Your task to perform on an android device: Search for flights from Sydney to Zurich Image 0: 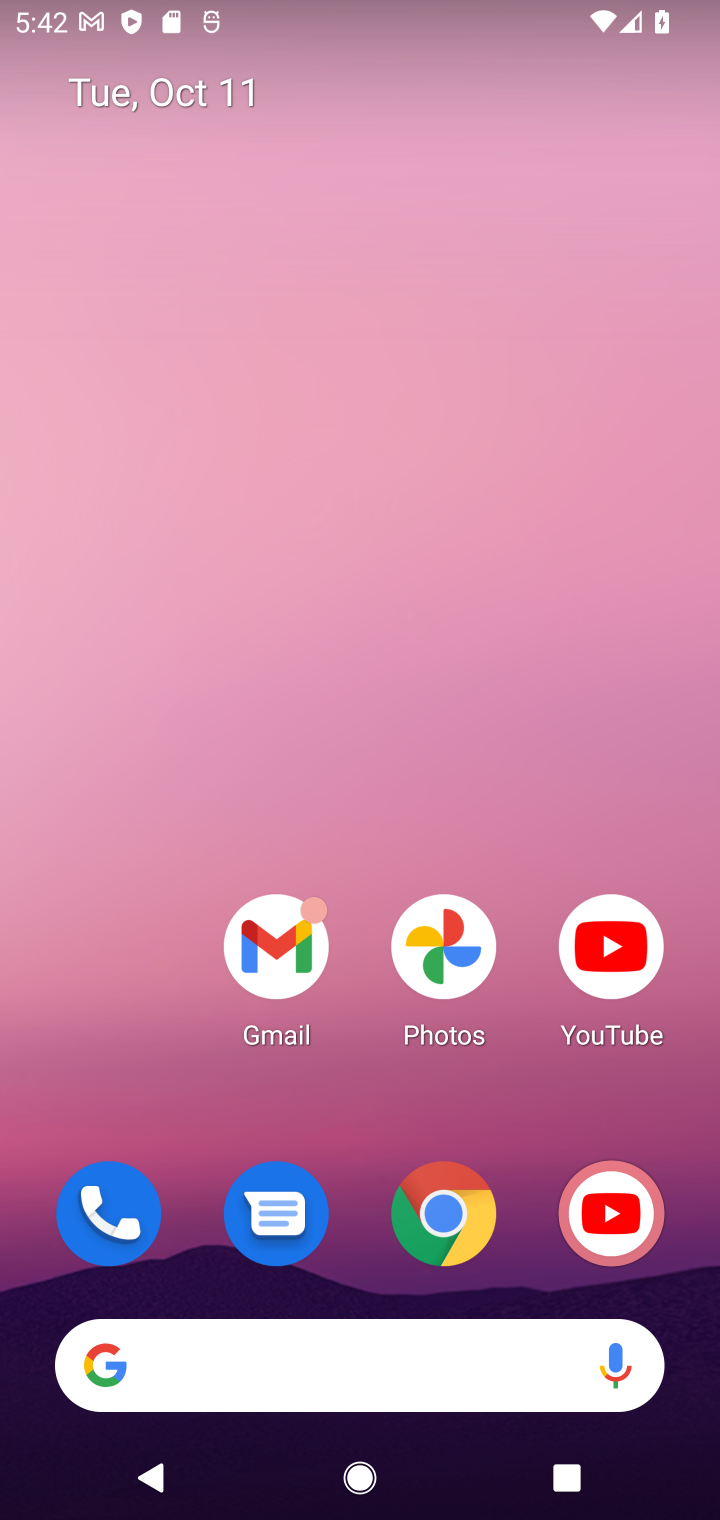
Step 0: drag from (440, 1072) to (548, 53)
Your task to perform on an android device: Search for flights from Sydney to Zurich Image 1: 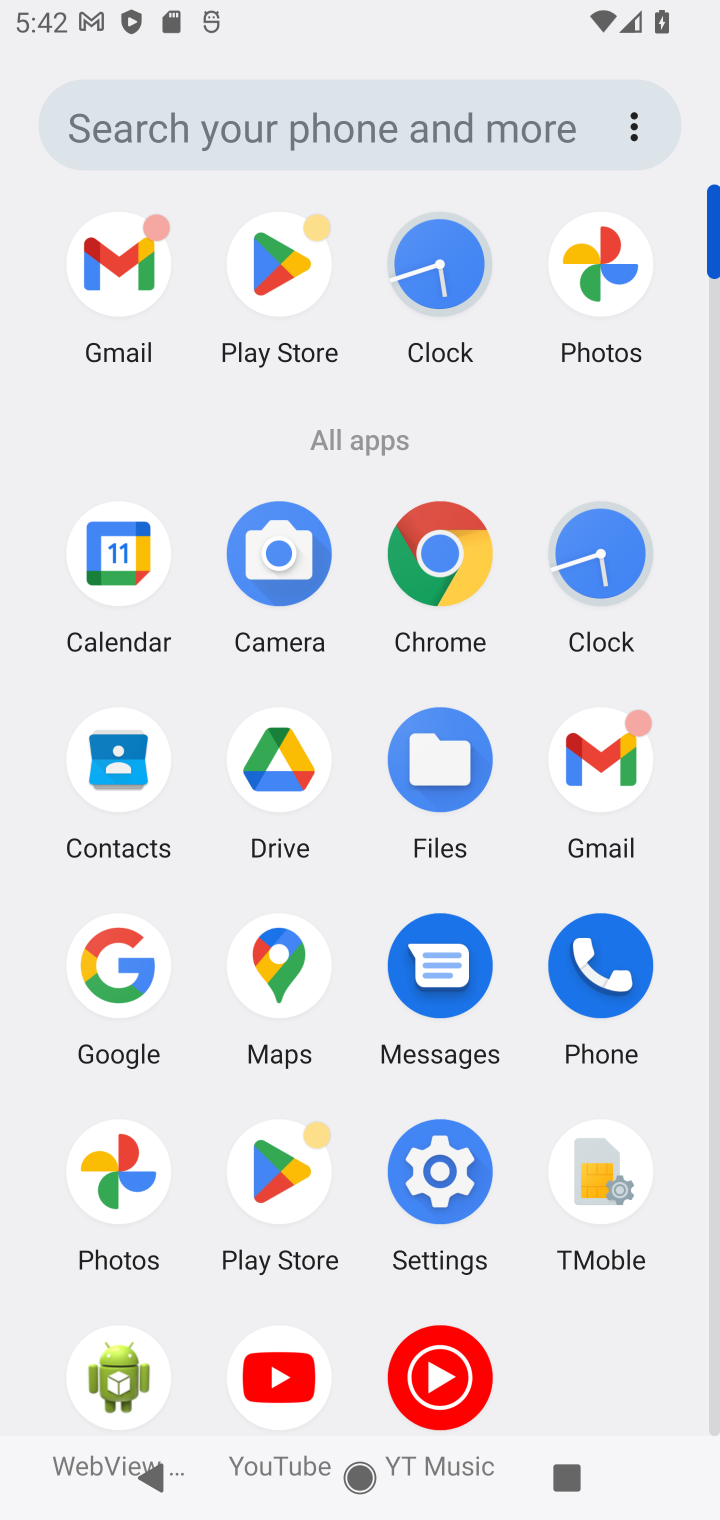
Step 1: click (457, 574)
Your task to perform on an android device: Search for flights from Sydney to Zurich Image 2: 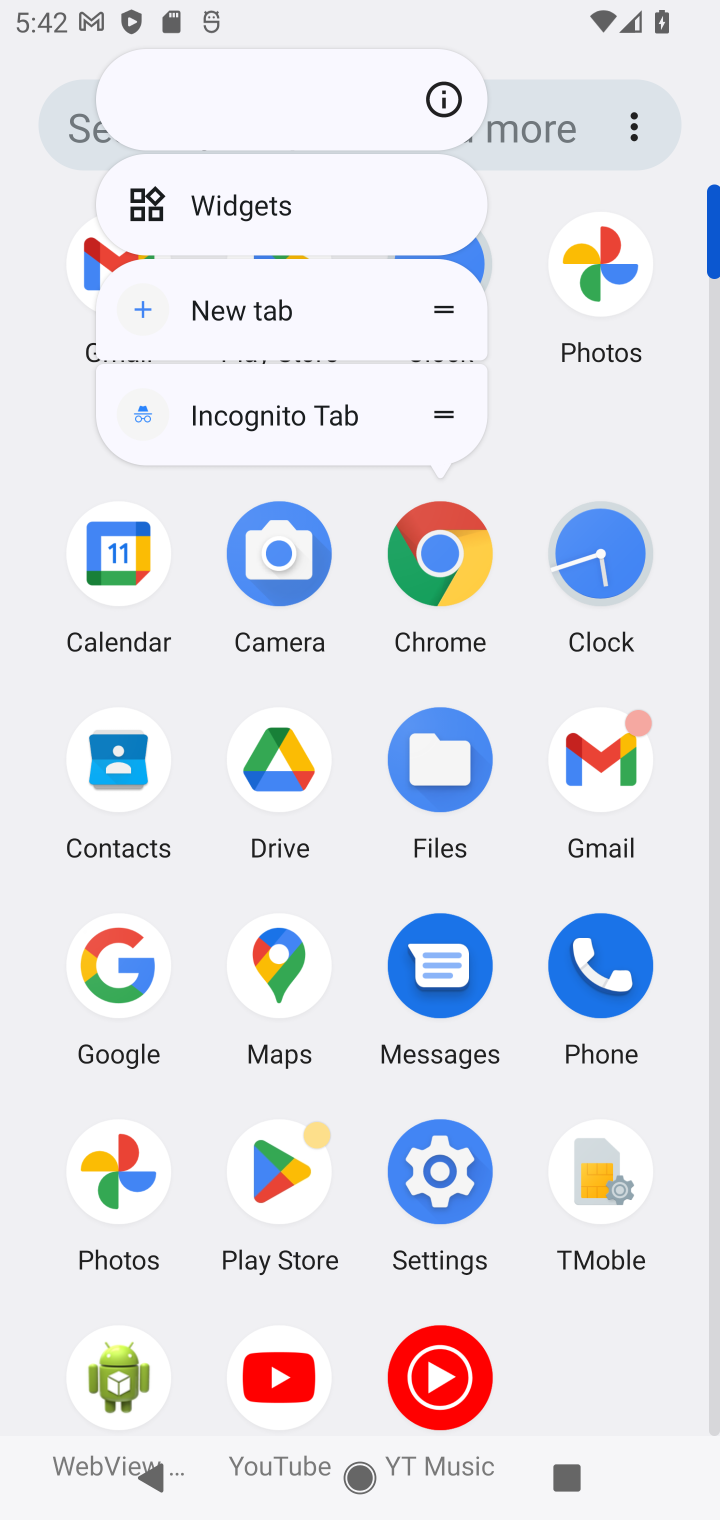
Step 2: click (442, 542)
Your task to perform on an android device: Search for flights from Sydney to Zurich Image 3: 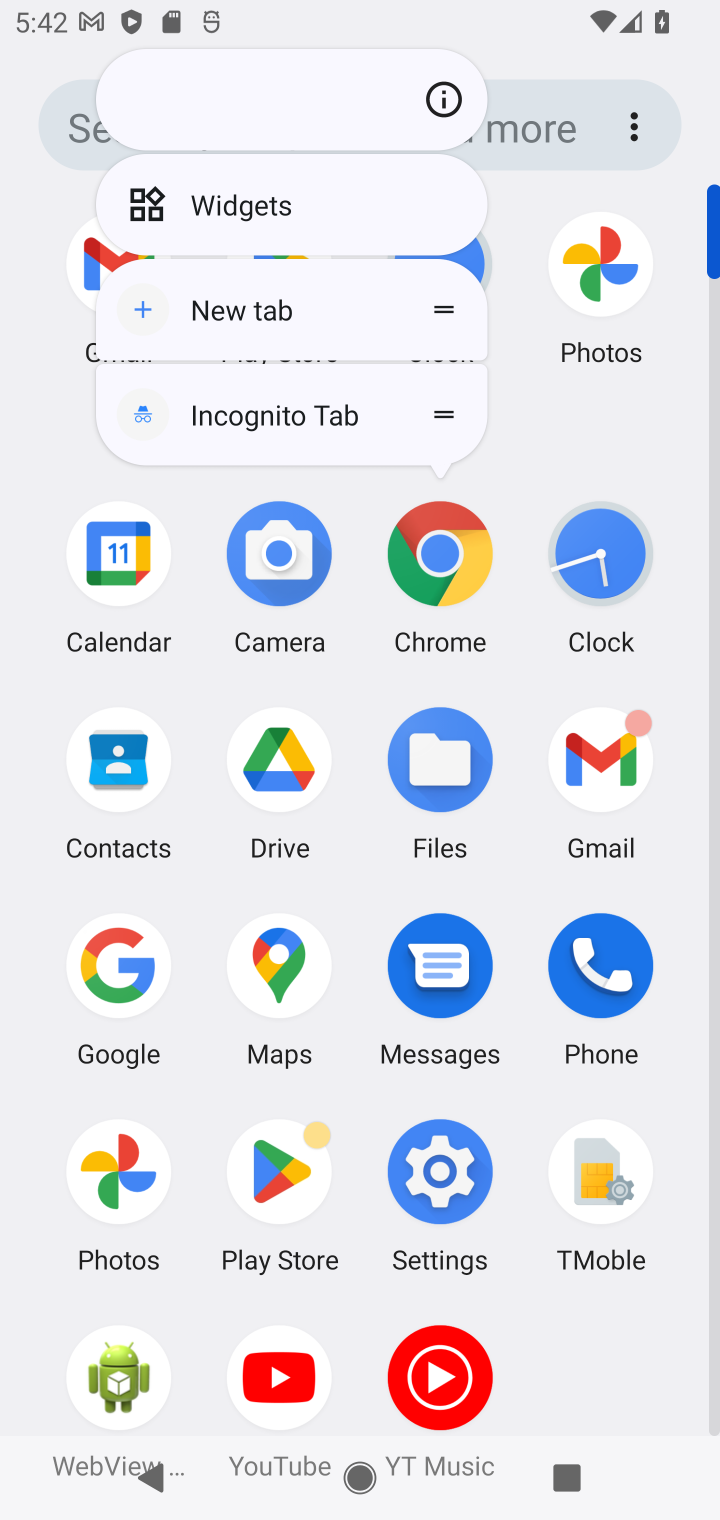
Step 3: click (440, 570)
Your task to perform on an android device: Search for flights from Sydney to Zurich Image 4: 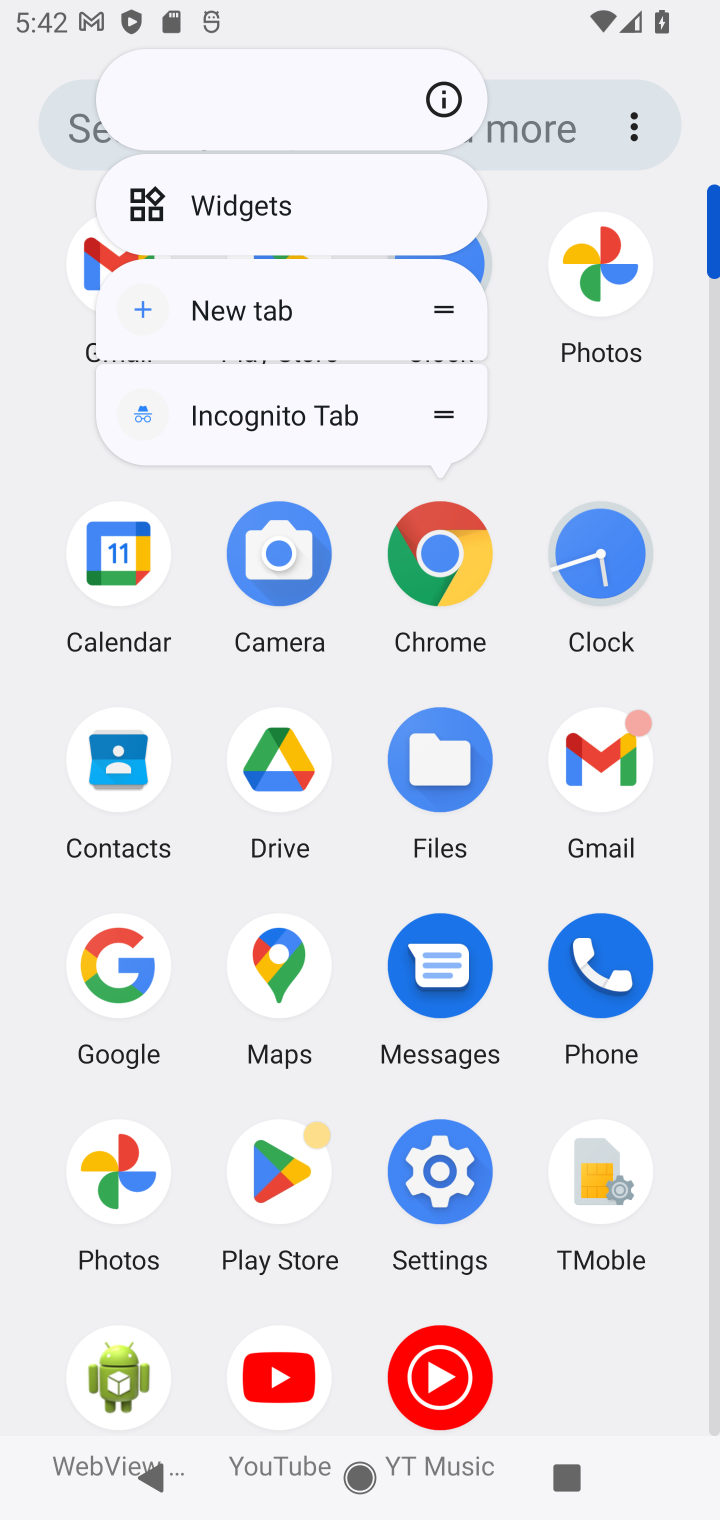
Step 4: click (440, 580)
Your task to perform on an android device: Search for flights from Sydney to Zurich Image 5: 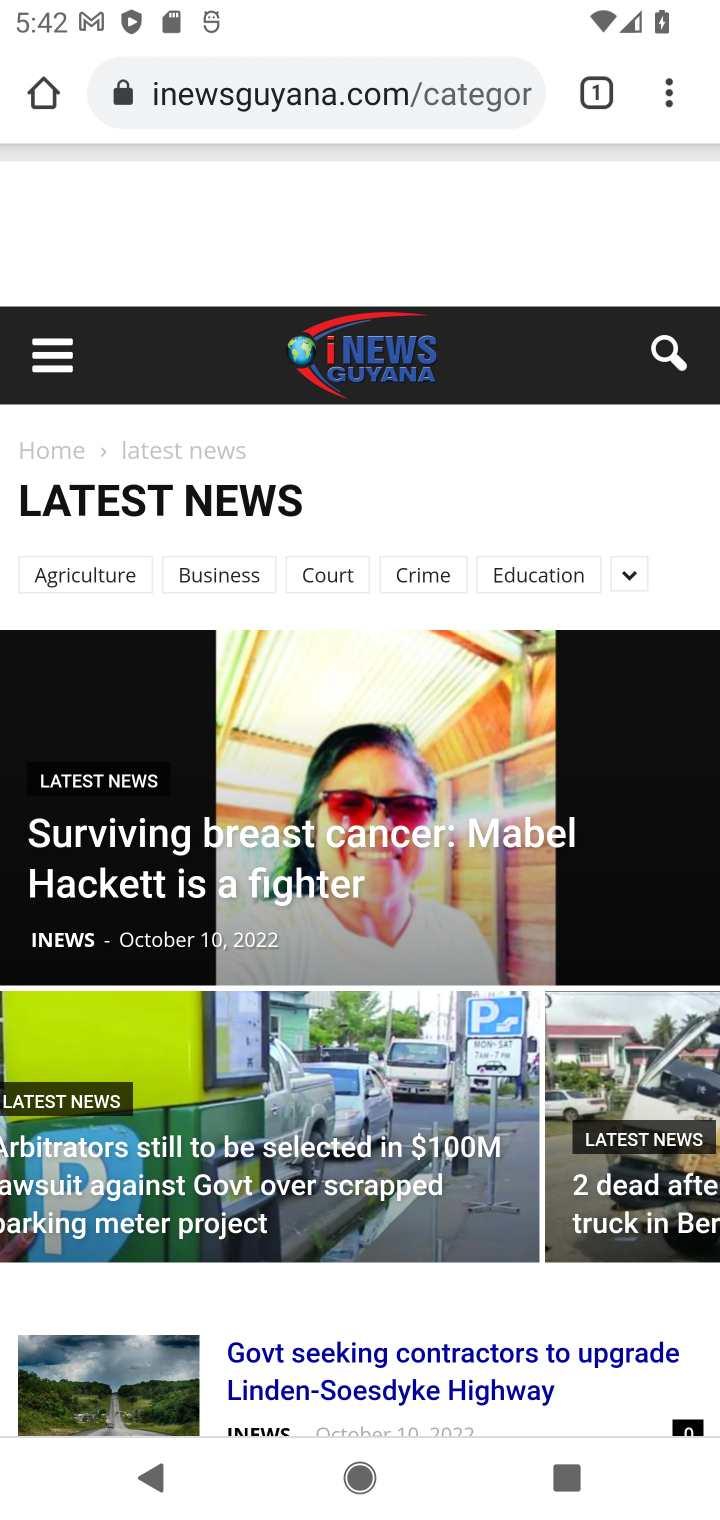
Step 5: click (444, 101)
Your task to perform on an android device: Search for flights from Sydney to Zurich Image 6: 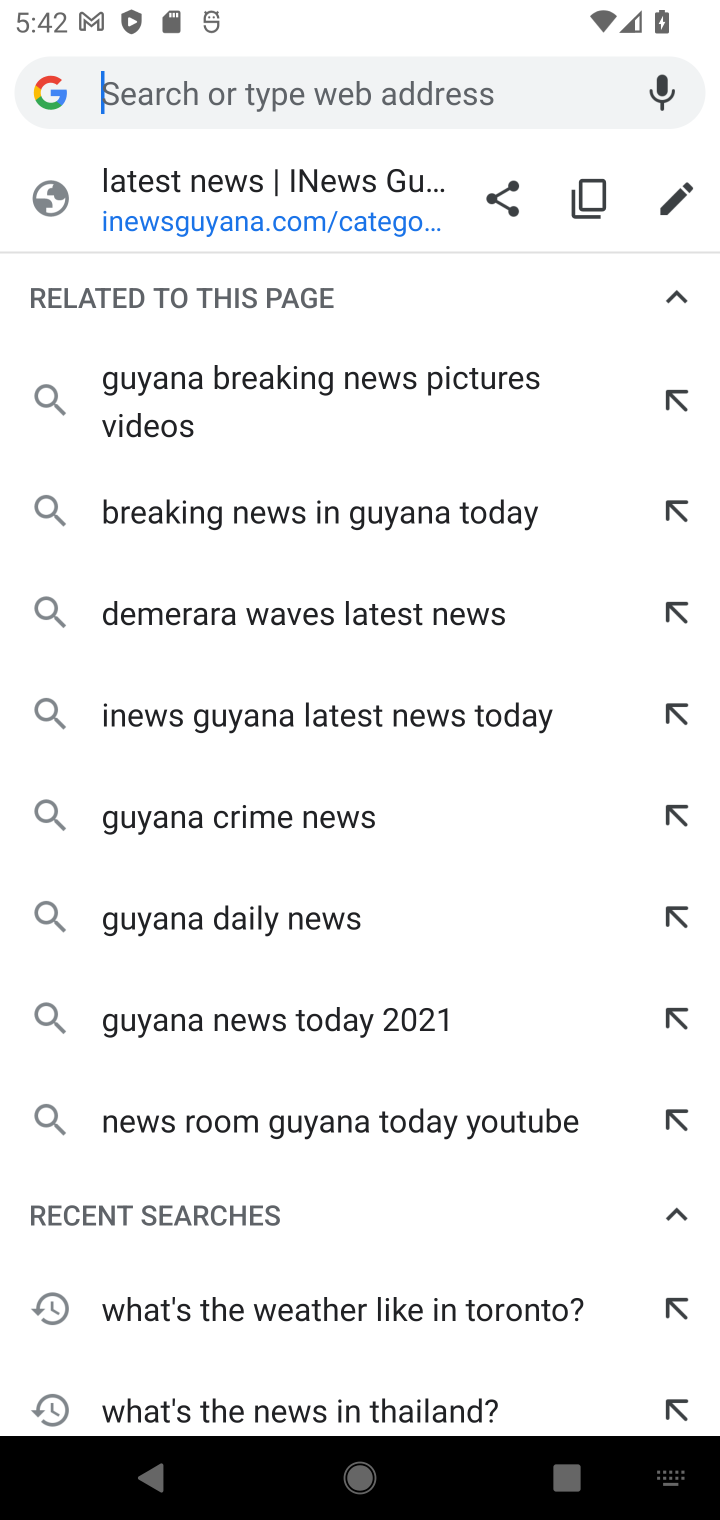
Step 6: type "flights from Sydney to Zurich"
Your task to perform on an android device: Search for flights from Sydney to Zurich Image 7: 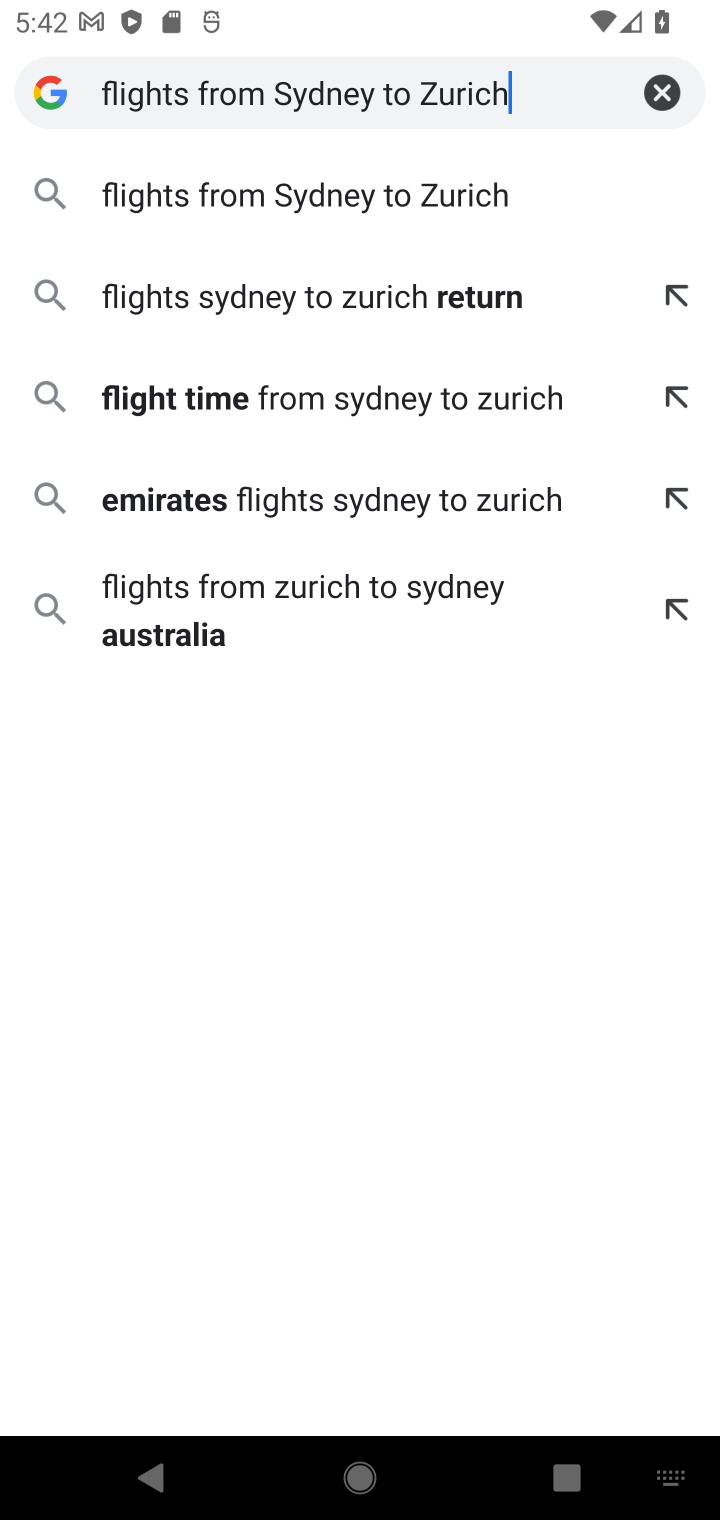
Step 7: press enter
Your task to perform on an android device: Search for flights from Sydney to Zurich Image 8: 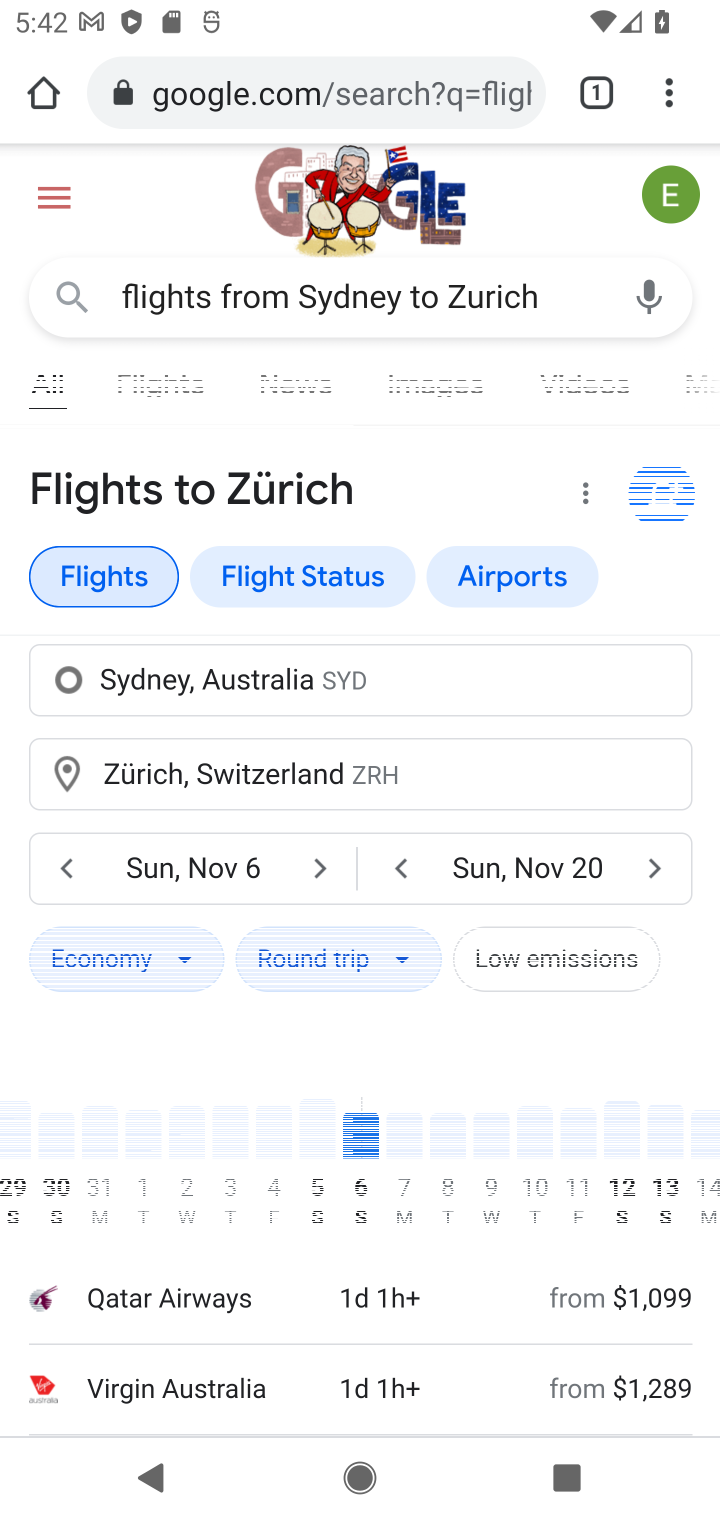
Step 8: drag from (386, 1171) to (524, 472)
Your task to perform on an android device: Search for flights from Sydney to Zurich Image 9: 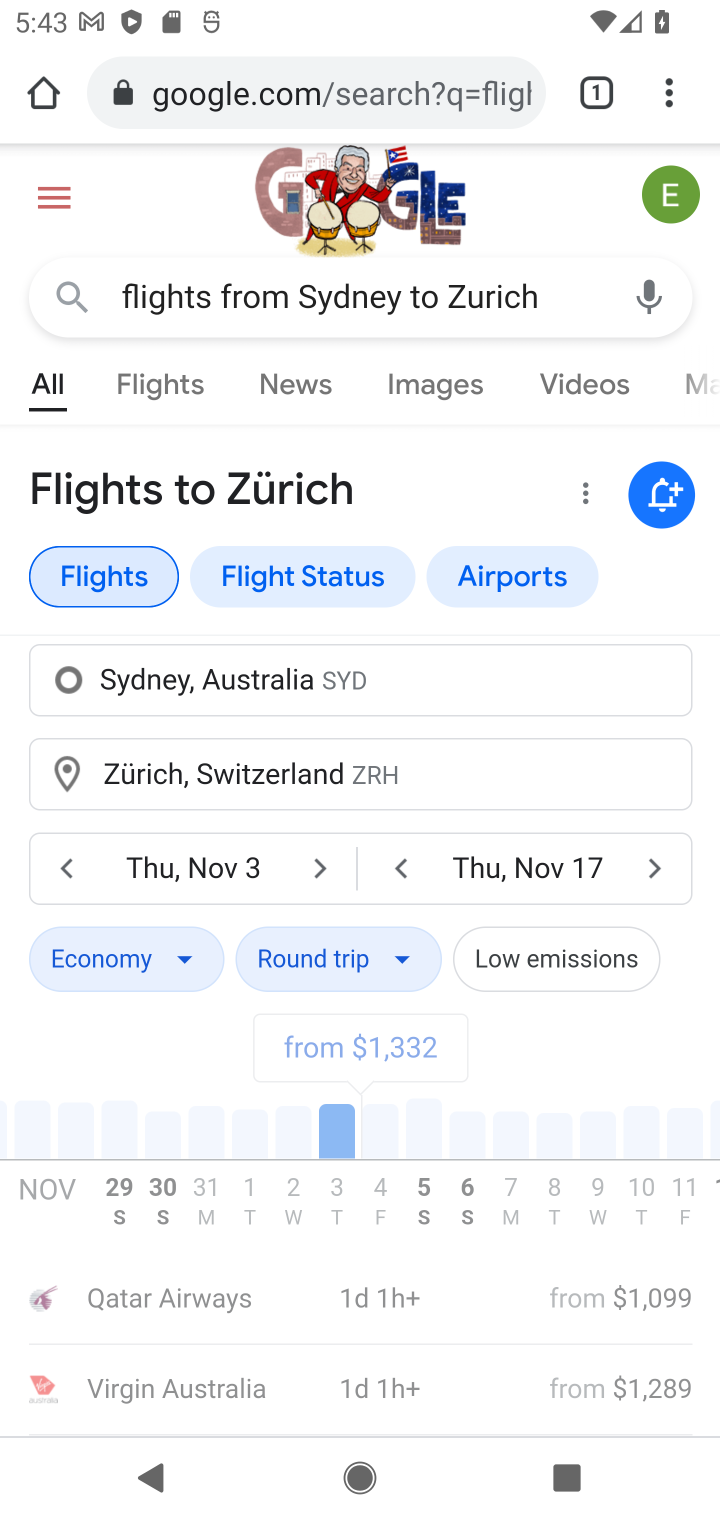
Step 9: drag from (522, 732) to (555, 422)
Your task to perform on an android device: Search for flights from Sydney to Zurich Image 10: 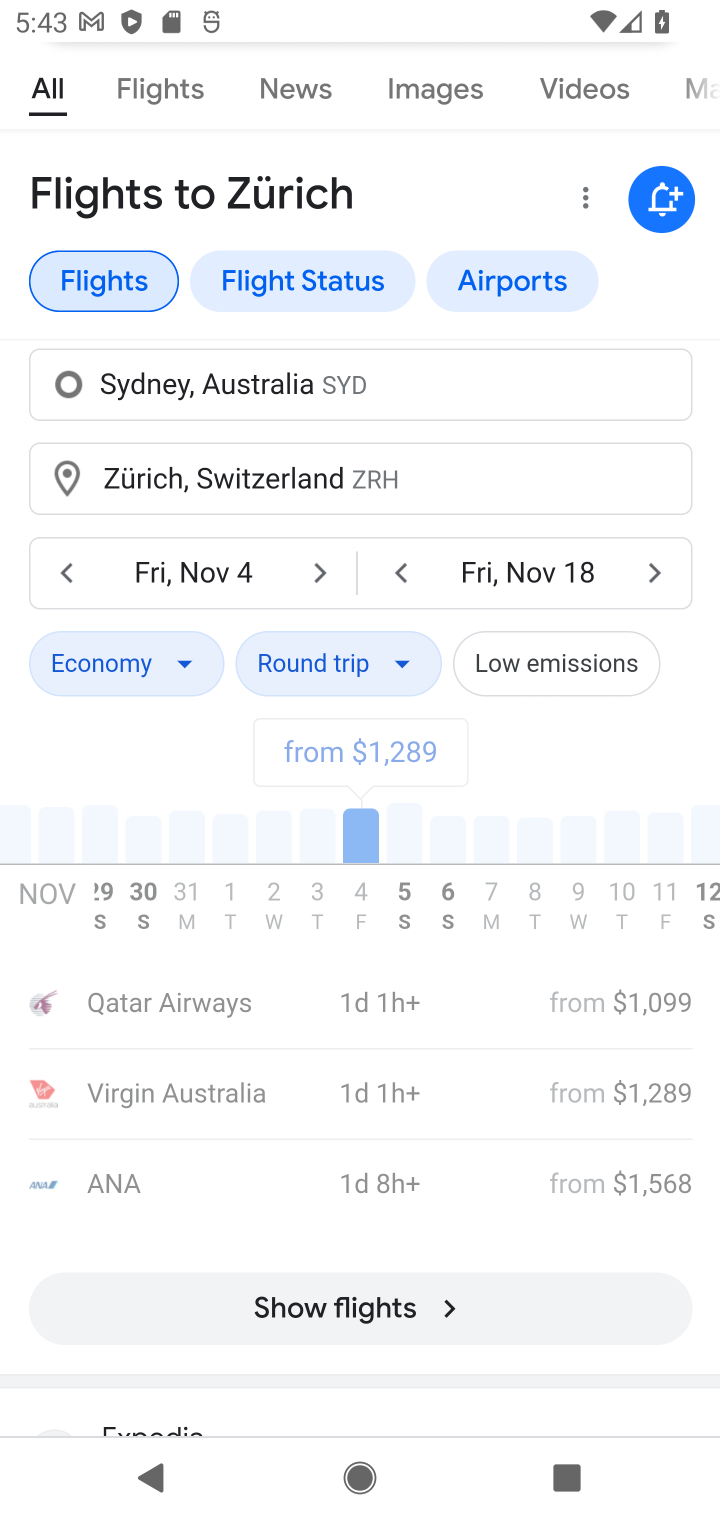
Step 10: click (391, 1299)
Your task to perform on an android device: Search for flights from Sydney to Zurich Image 11: 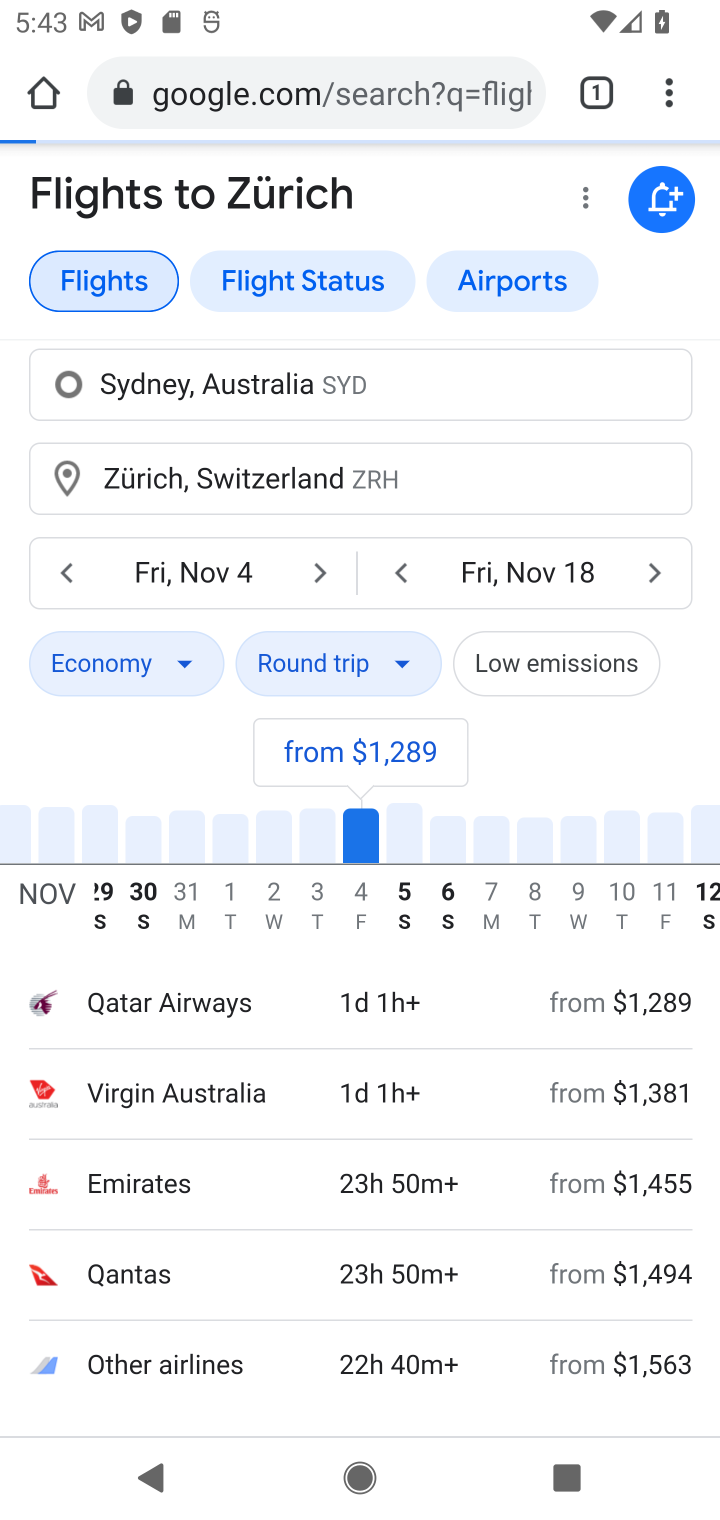
Step 11: drag from (389, 1296) to (456, 197)
Your task to perform on an android device: Search for flights from Sydney to Zurich Image 12: 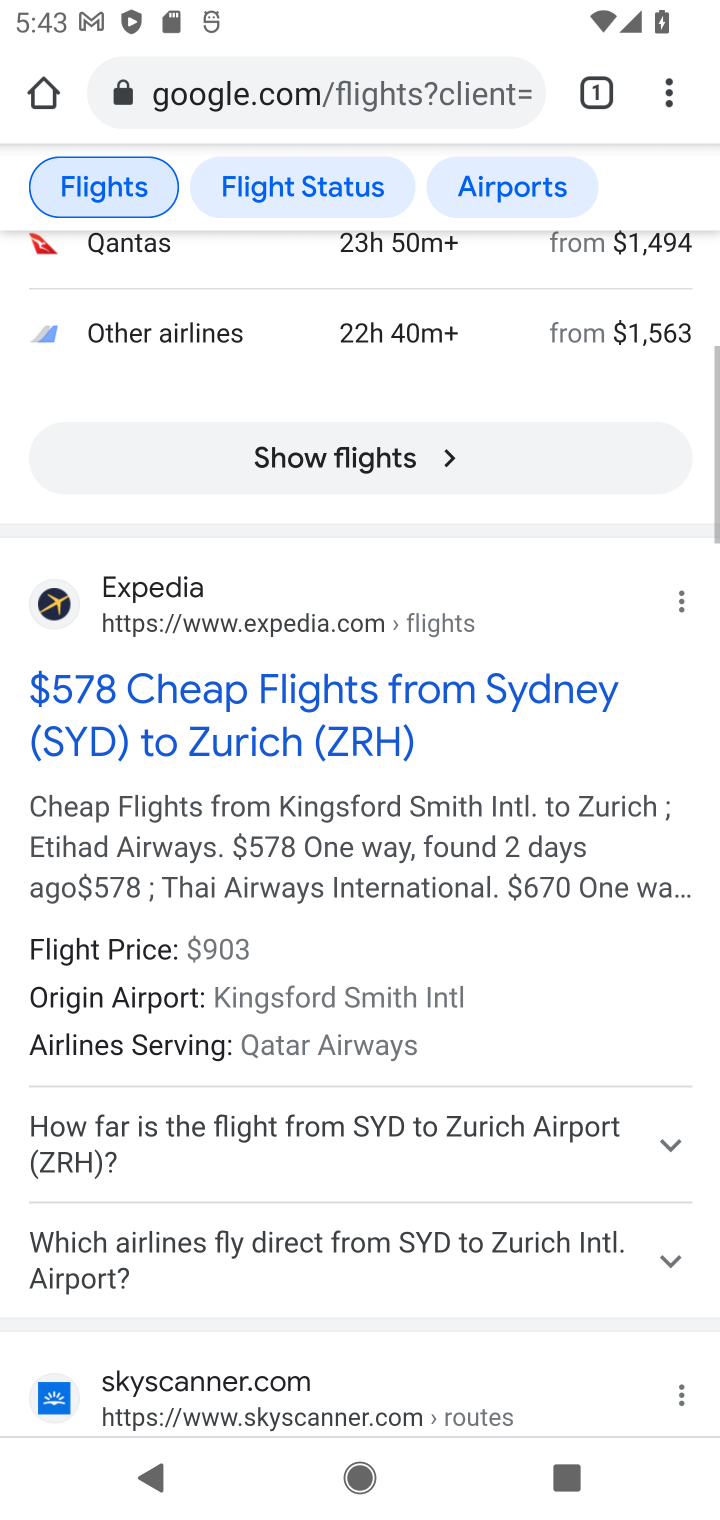
Step 12: click (294, 709)
Your task to perform on an android device: Search for flights from Sydney to Zurich Image 13: 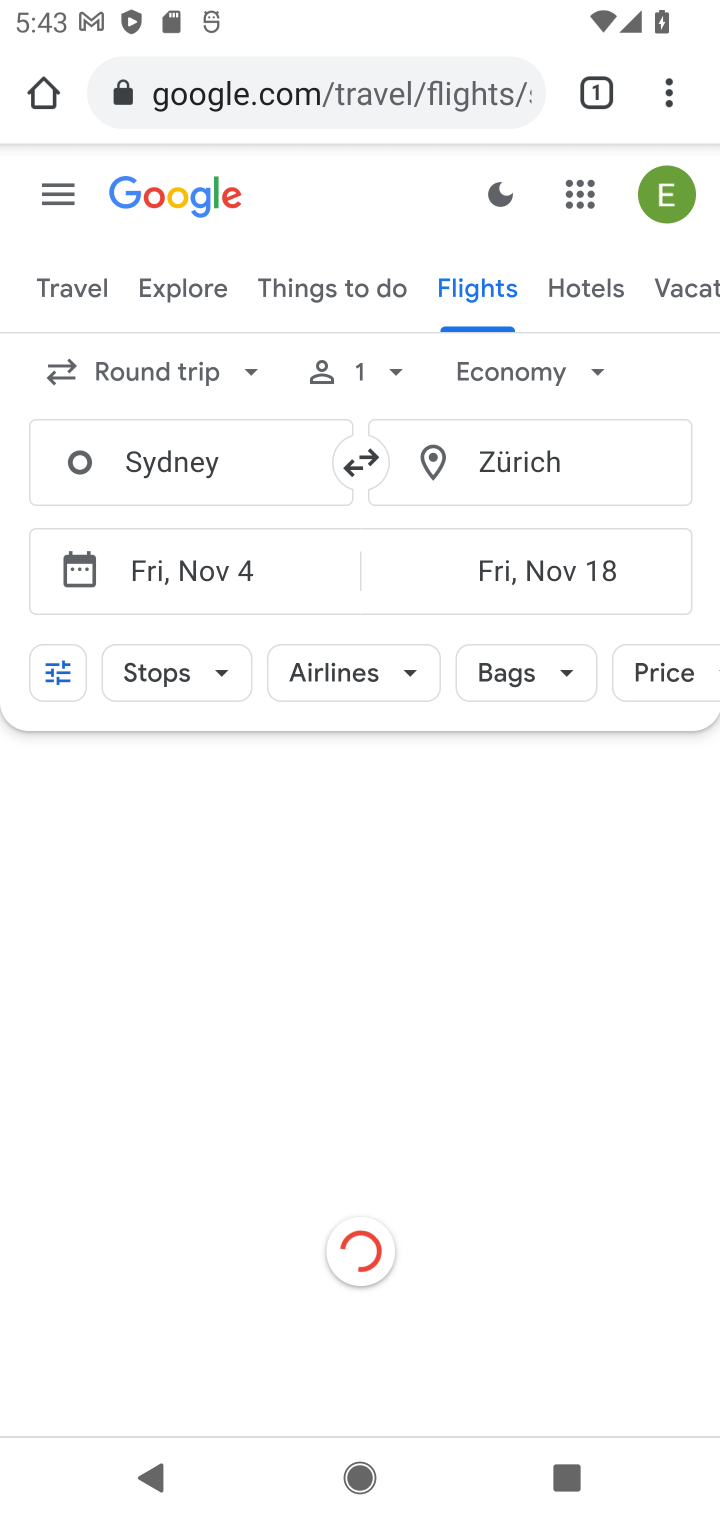
Step 13: drag from (388, 1306) to (418, 766)
Your task to perform on an android device: Search for flights from Sydney to Zurich Image 14: 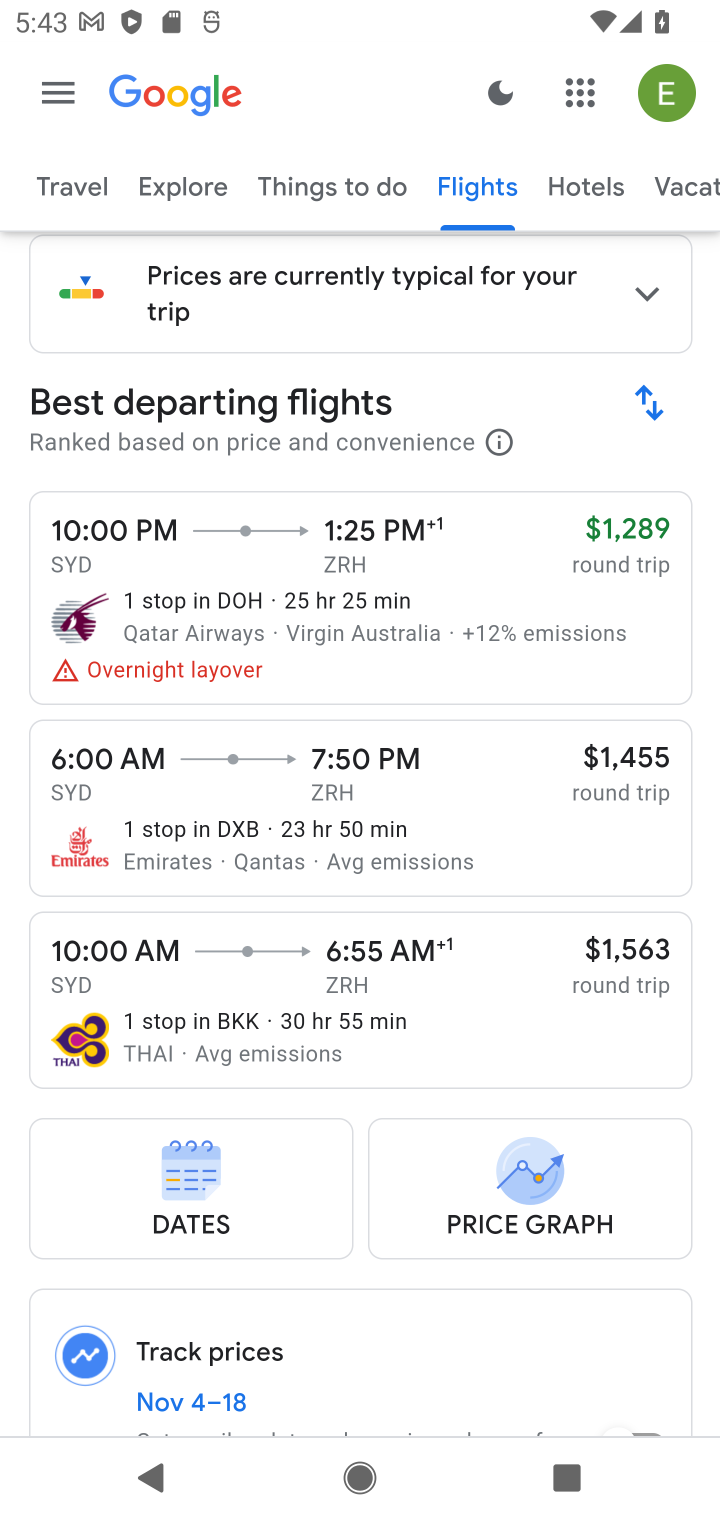
Step 14: drag from (403, 393) to (409, 217)
Your task to perform on an android device: Search for flights from Sydney to Zurich Image 15: 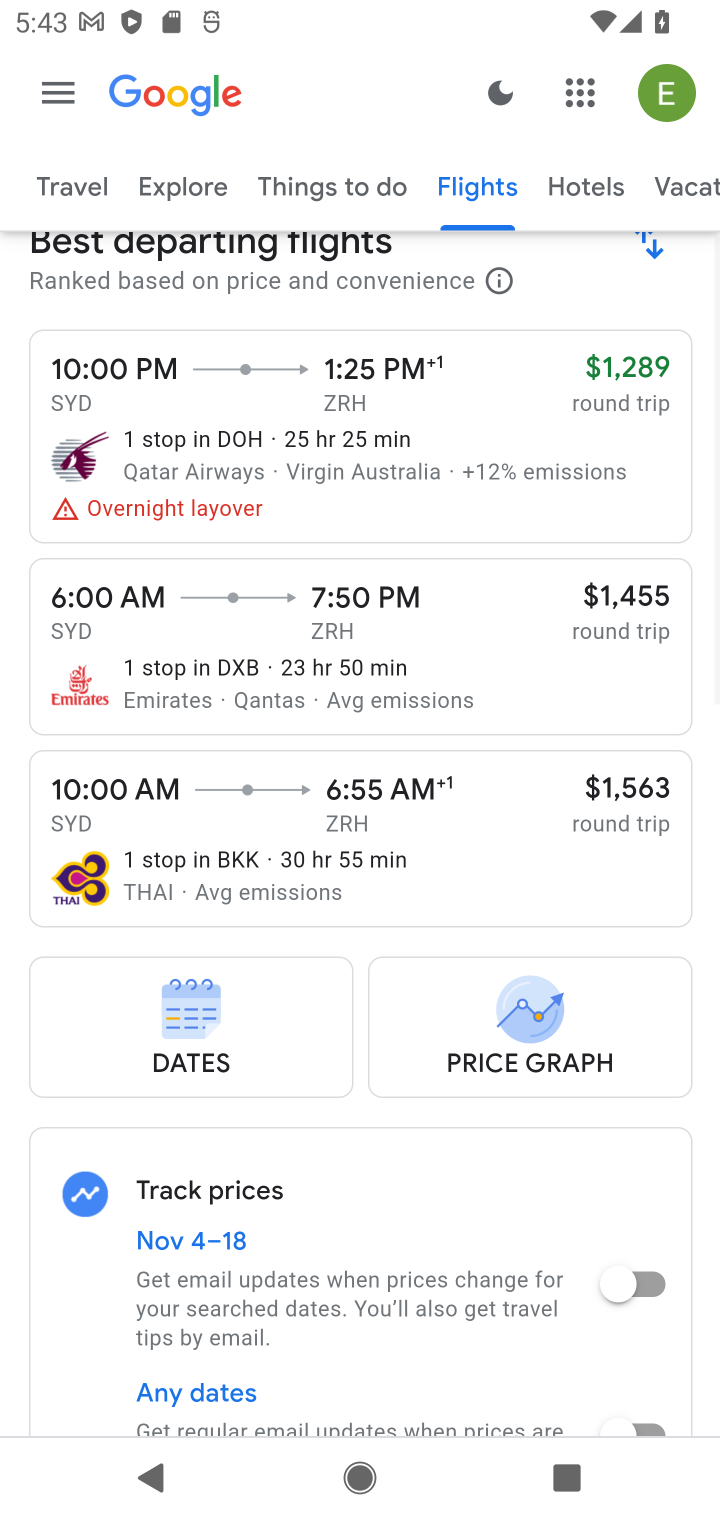
Step 15: drag from (324, 1114) to (453, 367)
Your task to perform on an android device: Search for flights from Sydney to Zurich Image 16: 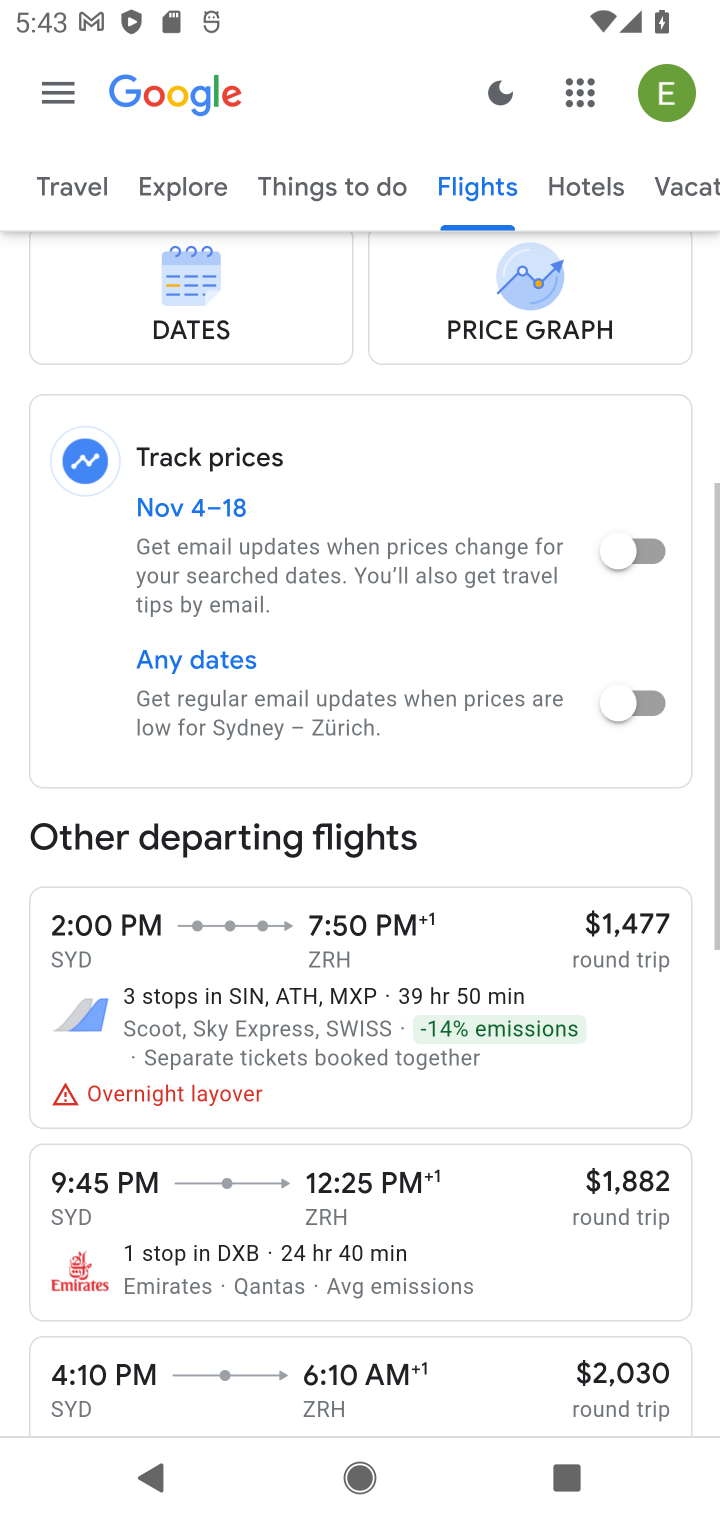
Step 16: drag from (450, 1269) to (439, 212)
Your task to perform on an android device: Search for flights from Sydney to Zurich Image 17: 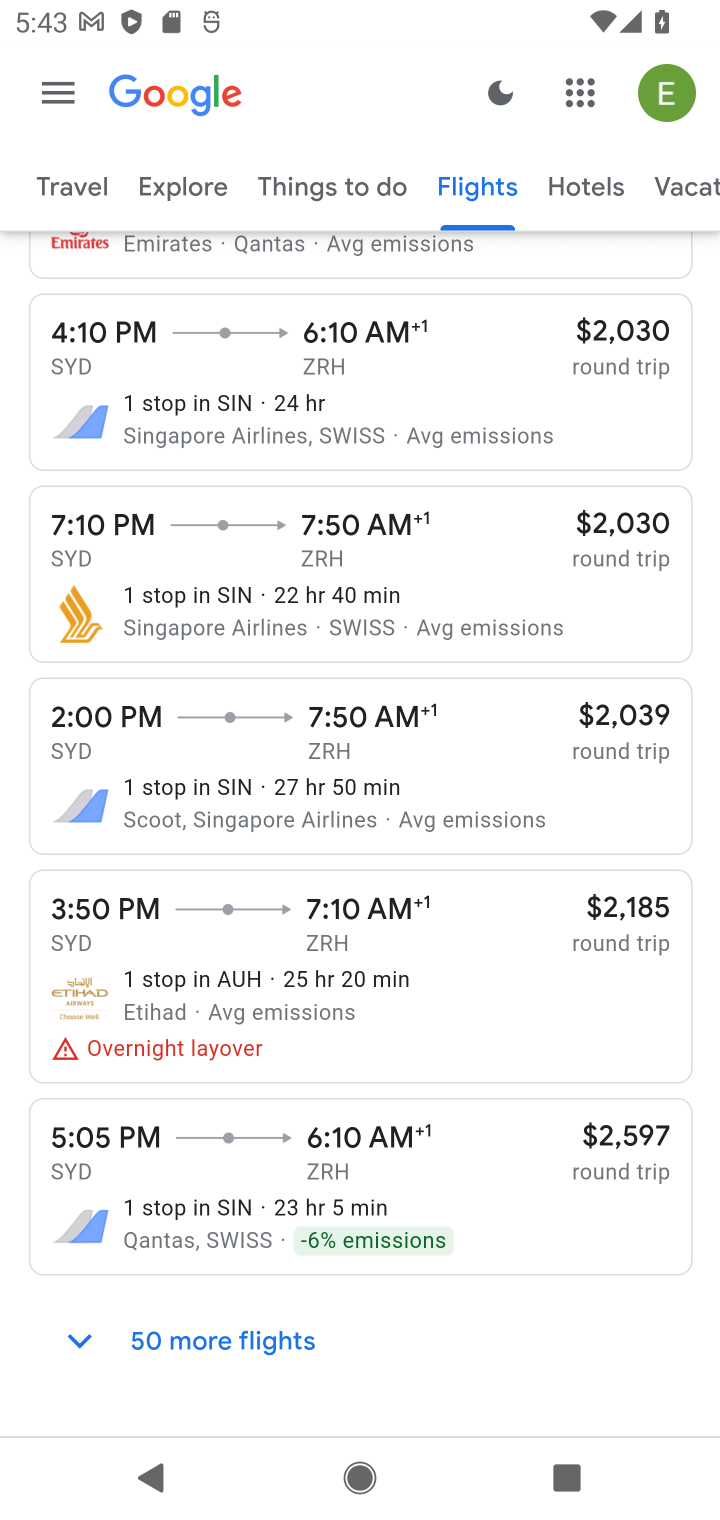
Step 17: drag from (382, 710) to (409, 256)
Your task to perform on an android device: Search for flights from Sydney to Zurich Image 18: 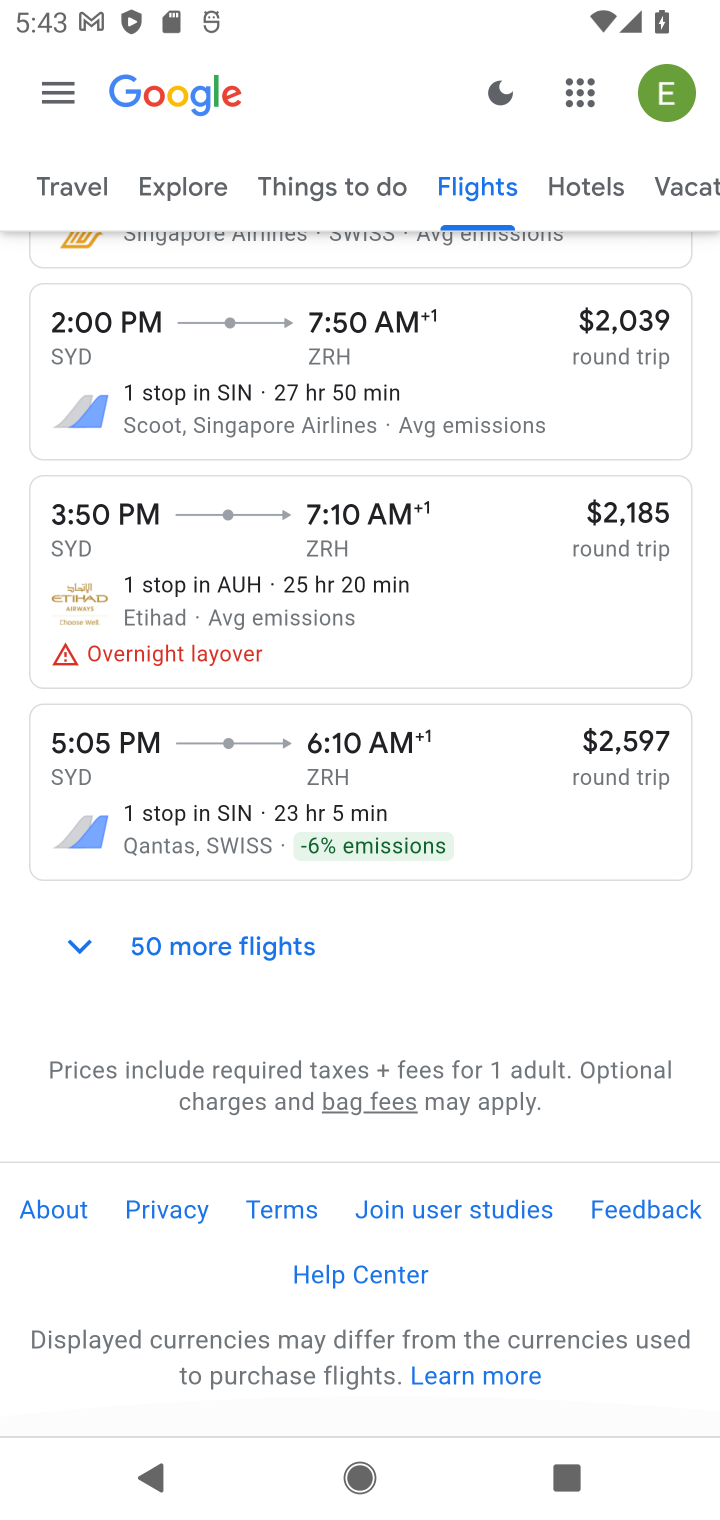
Step 18: drag from (394, 995) to (395, 411)
Your task to perform on an android device: Search for flights from Sydney to Zurich Image 19: 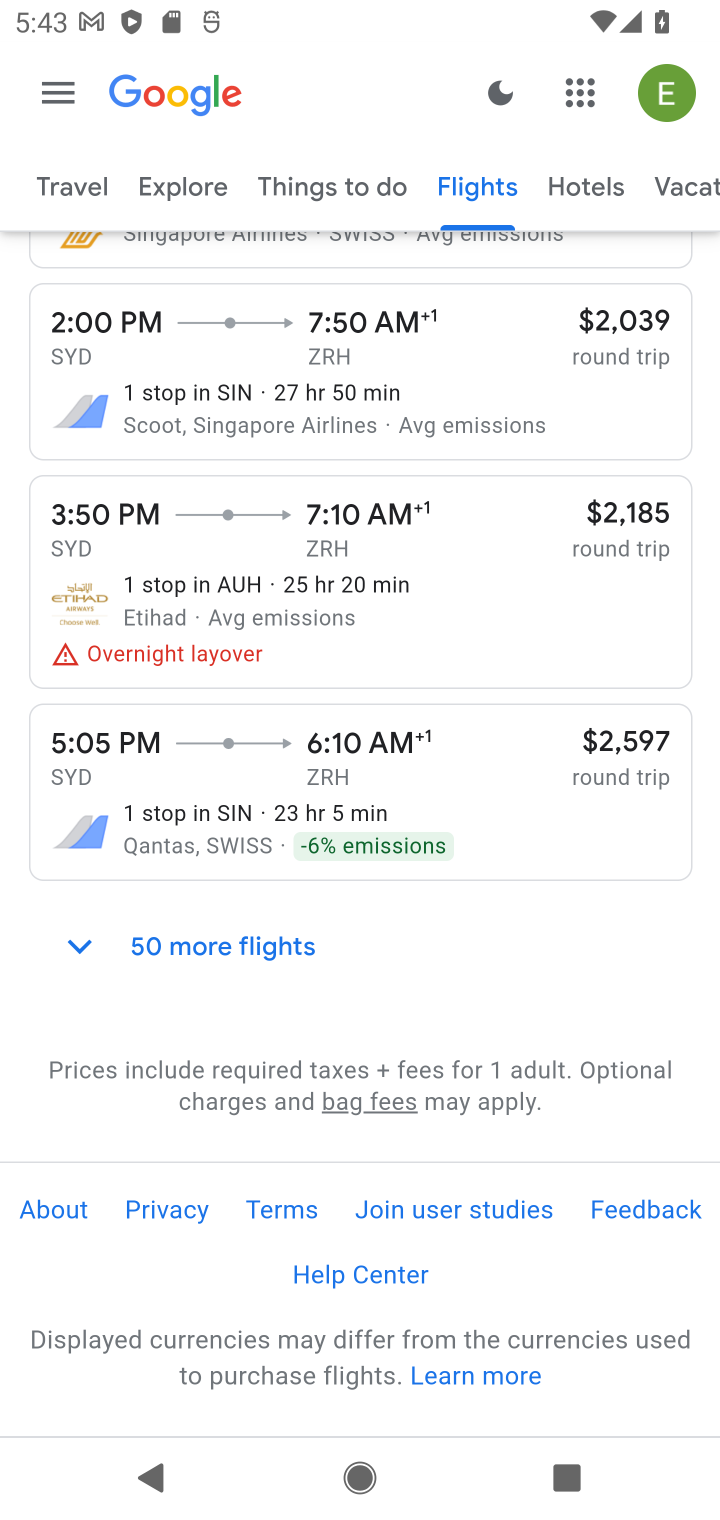
Step 19: click (262, 925)
Your task to perform on an android device: Search for flights from Sydney to Zurich Image 20: 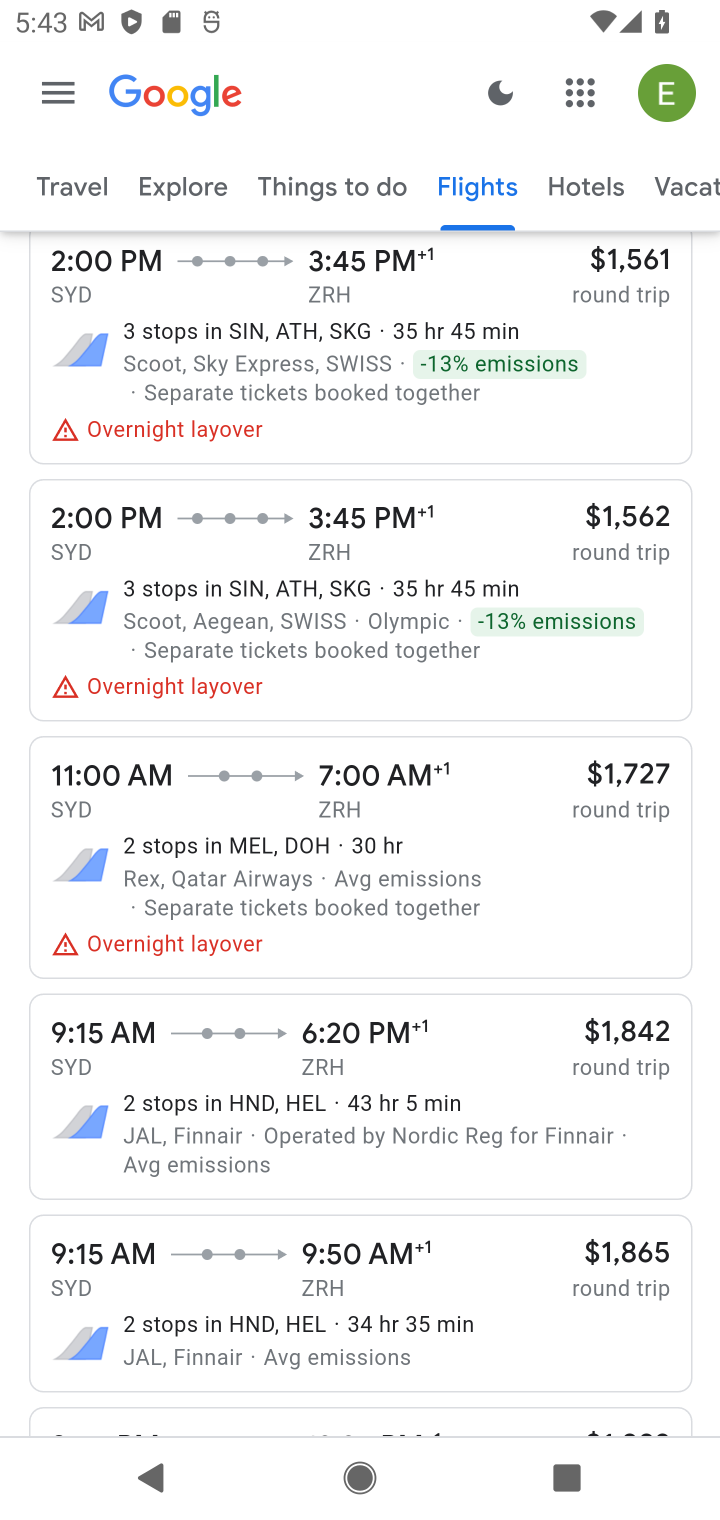
Step 20: task complete